Your task to perform on an android device: Turn off the flashlight Image 0: 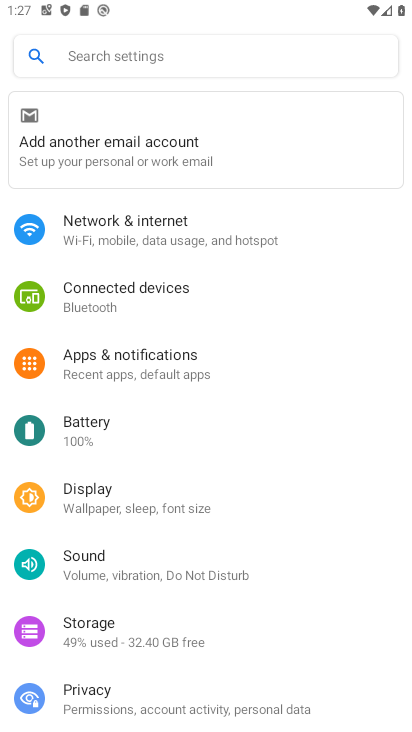
Step 0: click (110, 60)
Your task to perform on an android device: Turn off the flashlight Image 1: 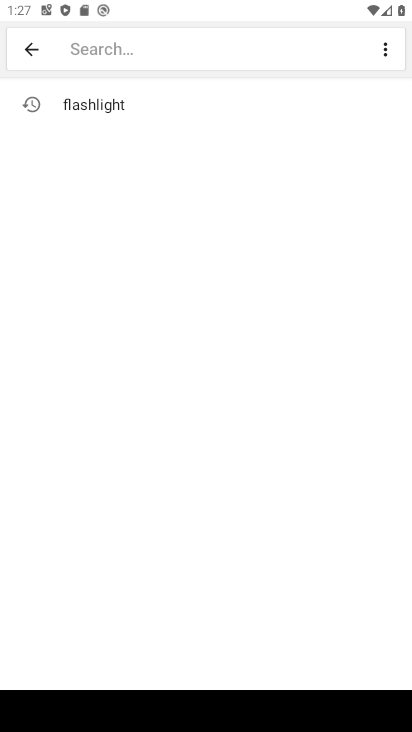
Step 1: click (108, 94)
Your task to perform on an android device: Turn off the flashlight Image 2: 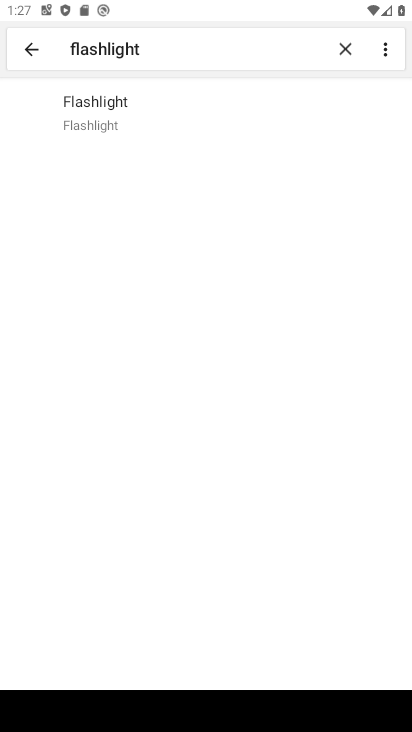
Step 2: click (108, 130)
Your task to perform on an android device: Turn off the flashlight Image 3: 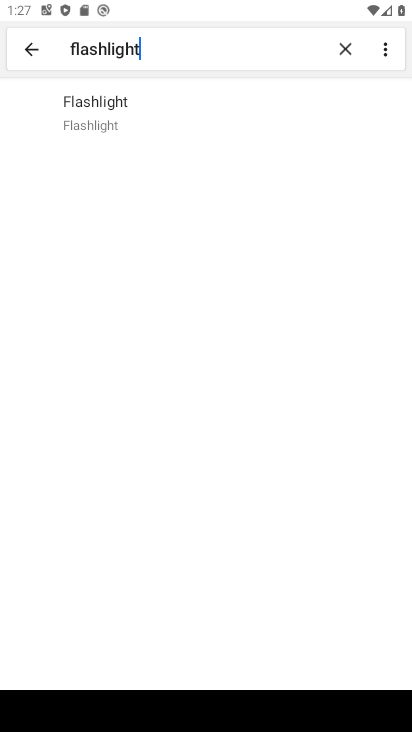
Step 3: task complete